Your task to perform on an android device: open chrome privacy settings Image 0: 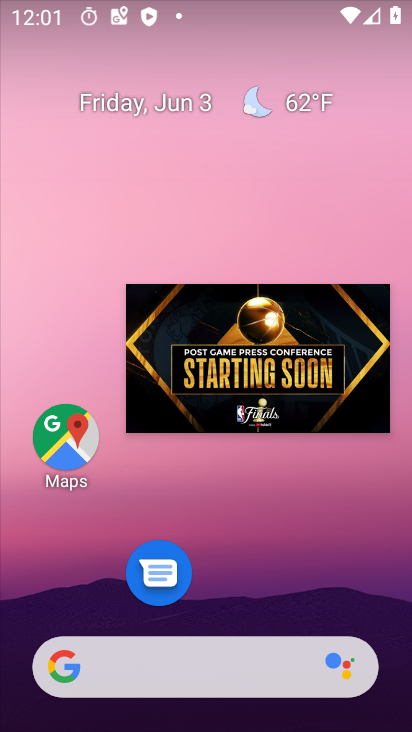
Step 0: click (358, 324)
Your task to perform on an android device: open chrome privacy settings Image 1: 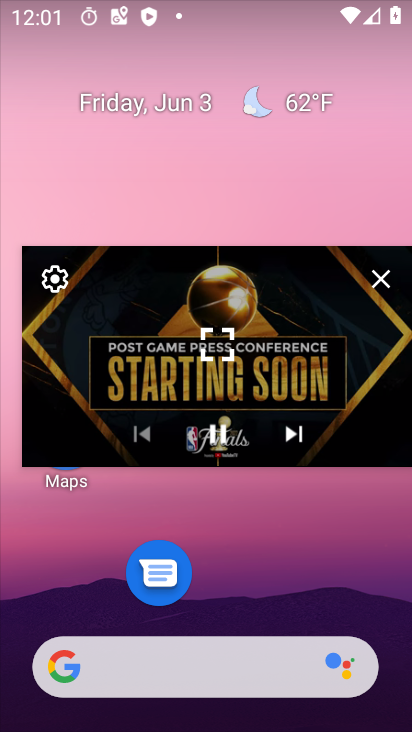
Step 1: click (382, 276)
Your task to perform on an android device: open chrome privacy settings Image 2: 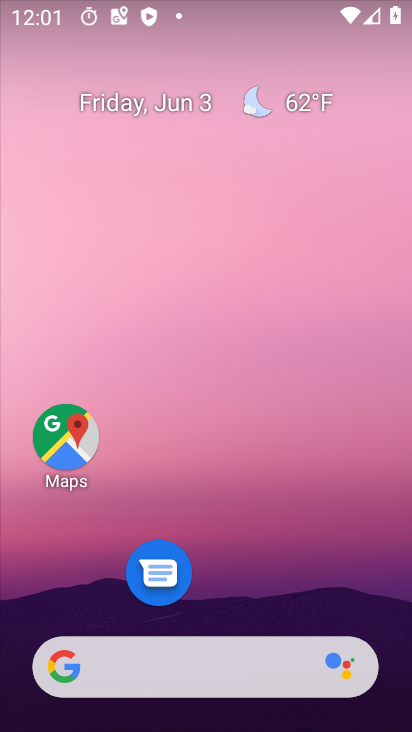
Step 2: drag from (333, 633) to (398, 1)
Your task to perform on an android device: open chrome privacy settings Image 3: 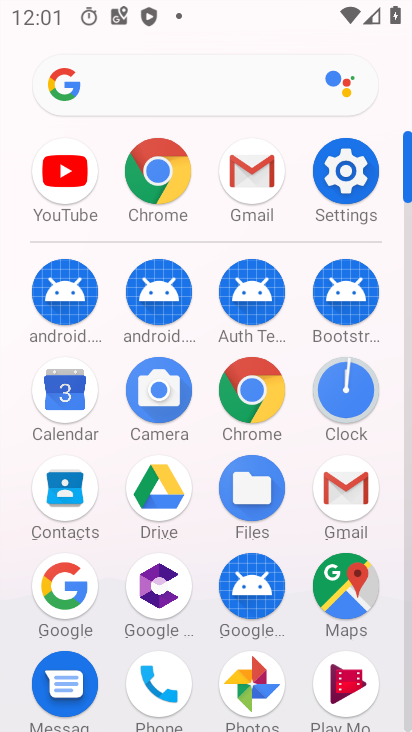
Step 3: click (356, 151)
Your task to perform on an android device: open chrome privacy settings Image 4: 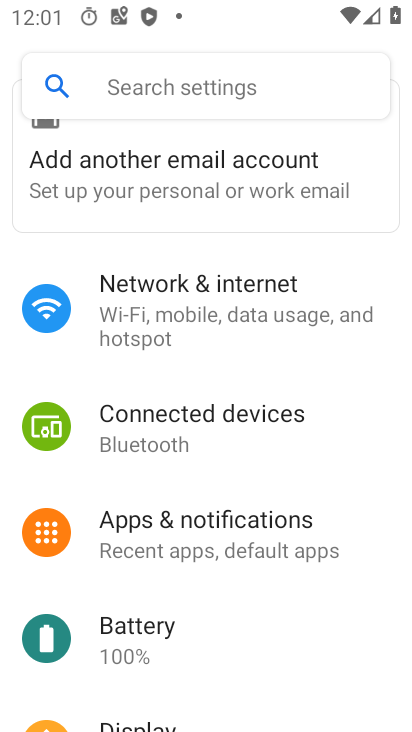
Step 4: drag from (240, 718) to (310, 273)
Your task to perform on an android device: open chrome privacy settings Image 5: 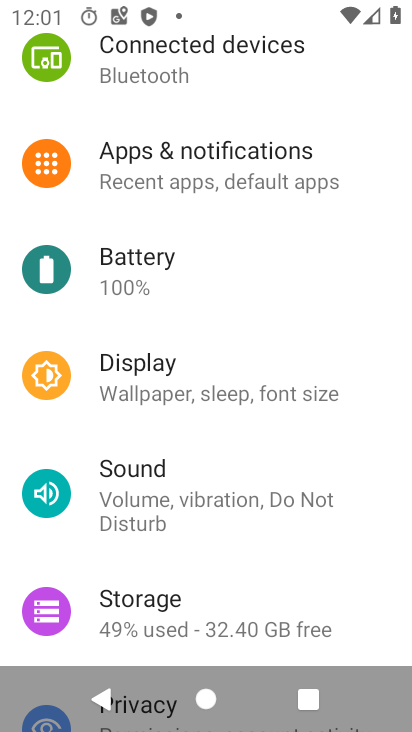
Step 5: press home button
Your task to perform on an android device: open chrome privacy settings Image 6: 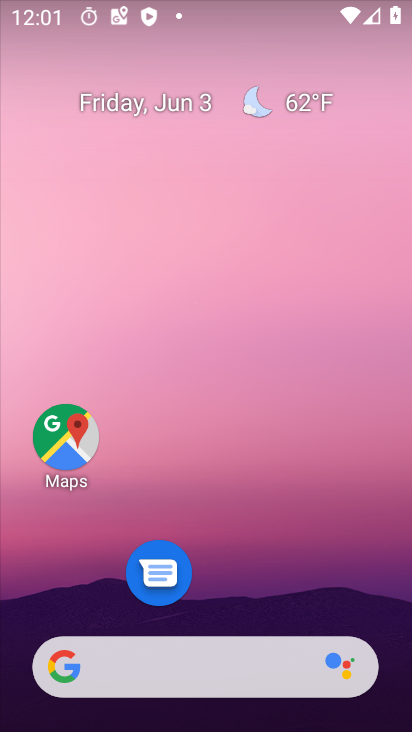
Step 6: drag from (255, 623) to (305, 5)
Your task to perform on an android device: open chrome privacy settings Image 7: 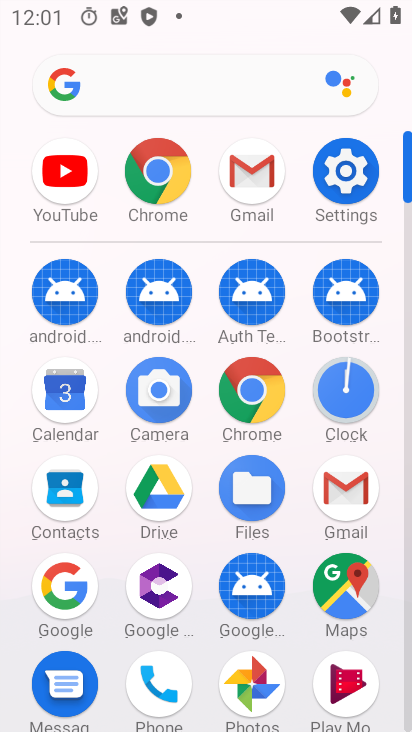
Step 7: click (265, 385)
Your task to perform on an android device: open chrome privacy settings Image 8: 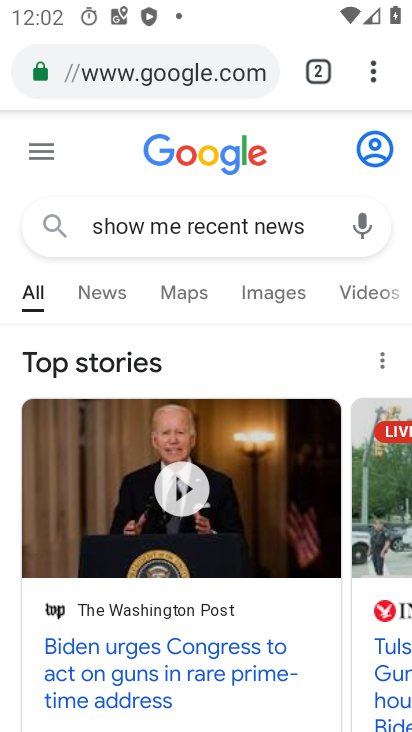
Step 8: drag from (371, 70) to (161, 584)
Your task to perform on an android device: open chrome privacy settings Image 9: 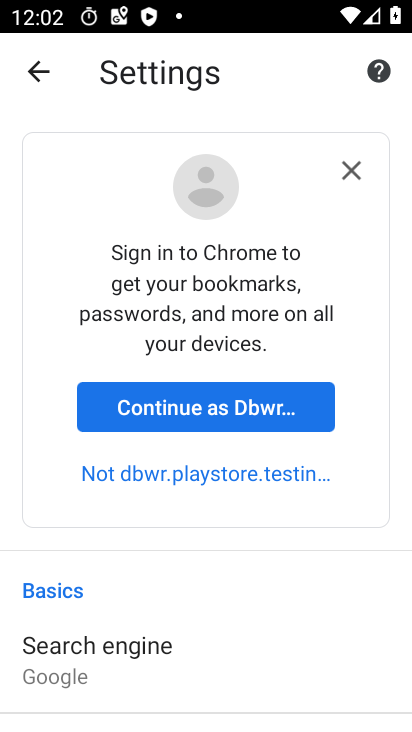
Step 9: drag from (193, 578) to (275, 0)
Your task to perform on an android device: open chrome privacy settings Image 10: 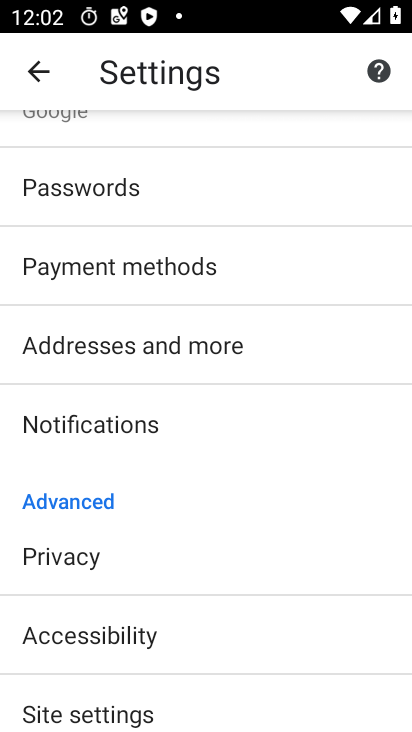
Step 10: click (114, 575)
Your task to perform on an android device: open chrome privacy settings Image 11: 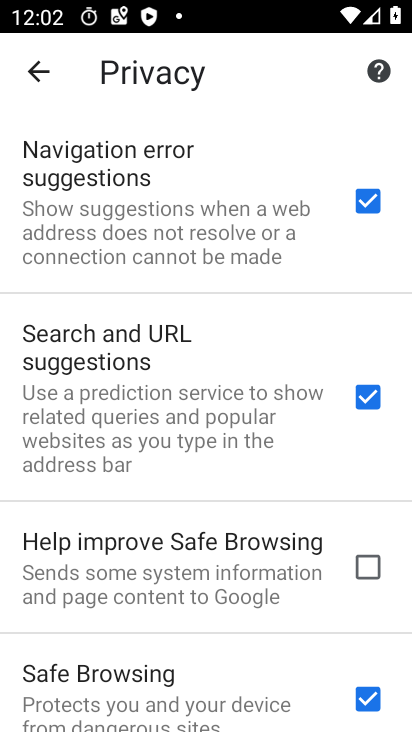
Step 11: task complete